Your task to perform on an android device: Go to Wikipedia Image 0: 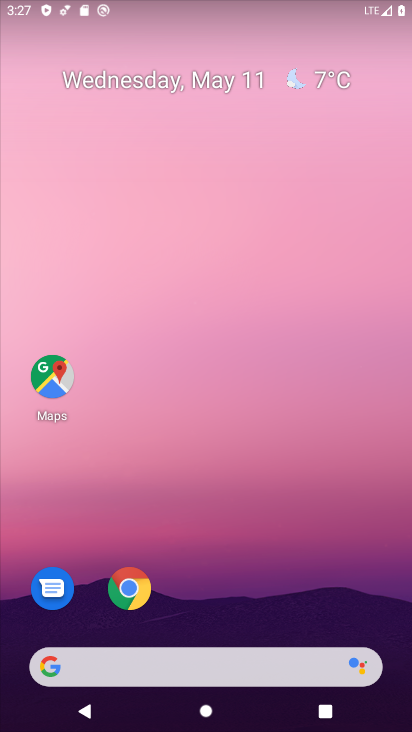
Step 0: click (127, 585)
Your task to perform on an android device: Go to Wikipedia Image 1: 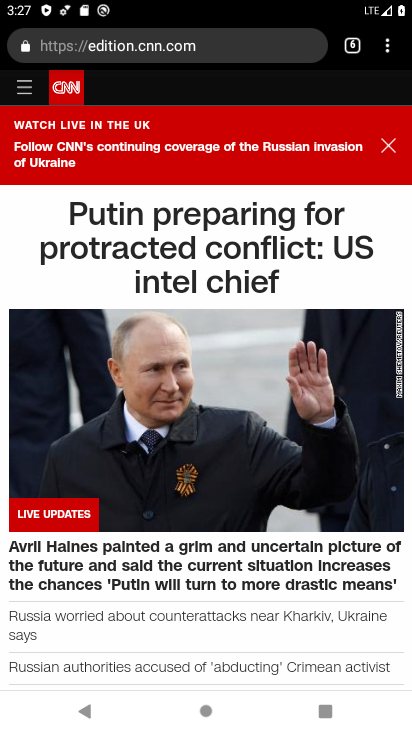
Step 1: click (388, 51)
Your task to perform on an android device: Go to Wikipedia Image 2: 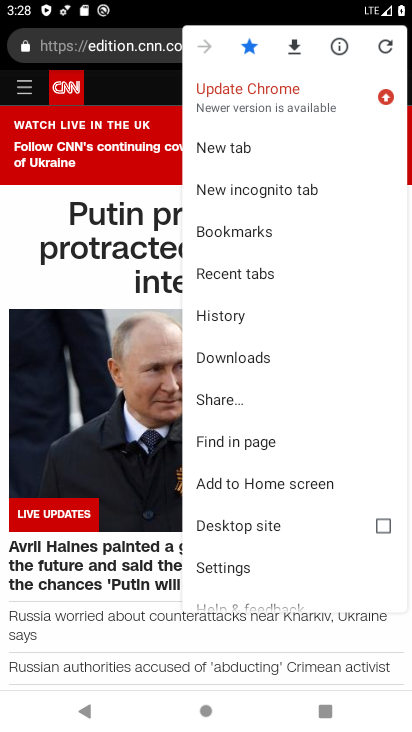
Step 2: click (234, 142)
Your task to perform on an android device: Go to Wikipedia Image 3: 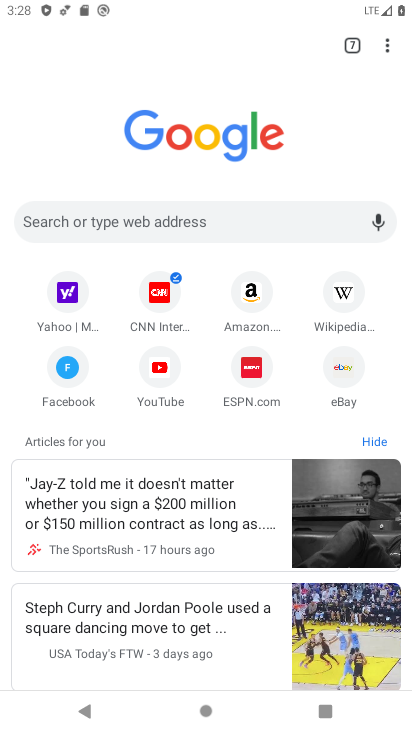
Step 3: click (348, 291)
Your task to perform on an android device: Go to Wikipedia Image 4: 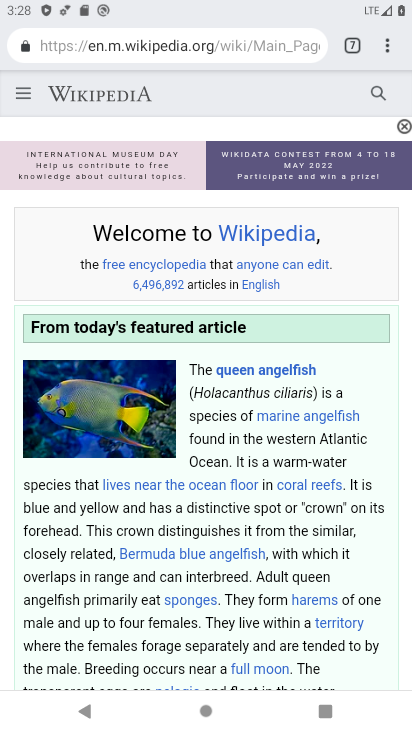
Step 4: task complete